Your task to perform on an android device: toggle priority inbox in the gmail app Image 0: 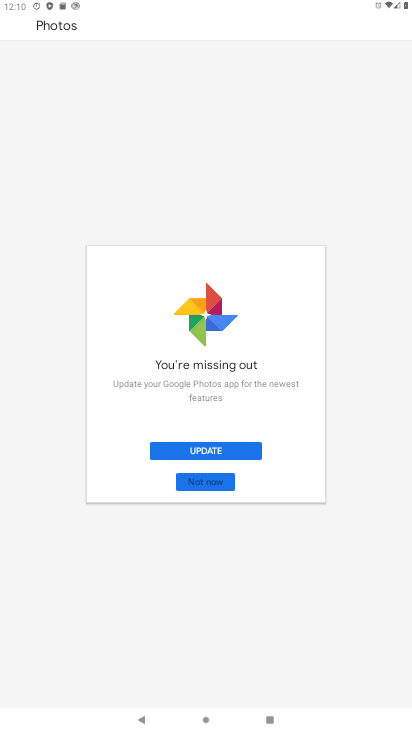
Step 0: press home button
Your task to perform on an android device: toggle priority inbox in the gmail app Image 1: 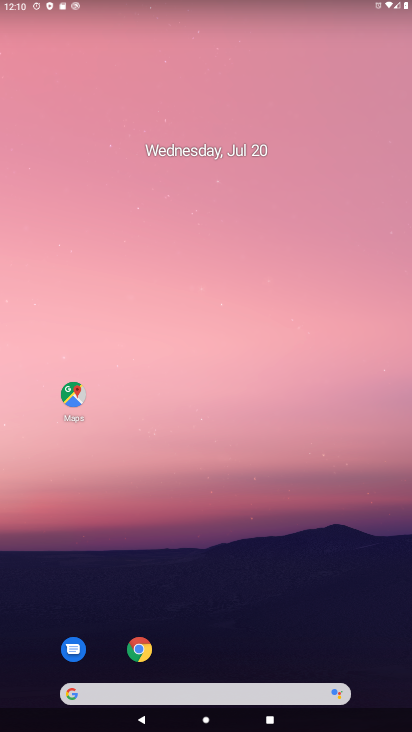
Step 1: drag from (237, 725) to (247, 249)
Your task to perform on an android device: toggle priority inbox in the gmail app Image 2: 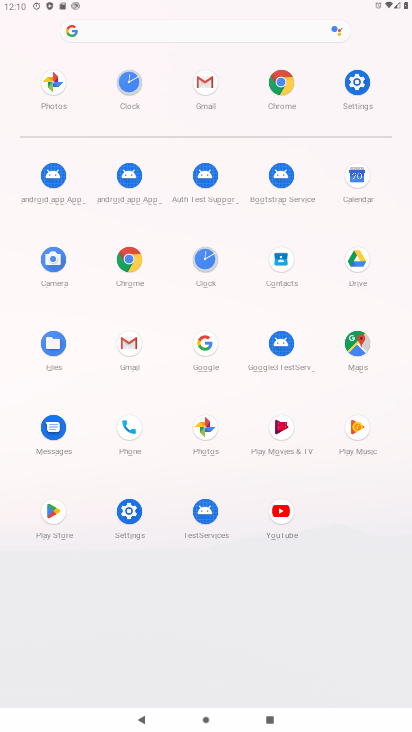
Step 2: click (133, 344)
Your task to perform on an android device: toggle priority inbox in the gmail app Image 3: 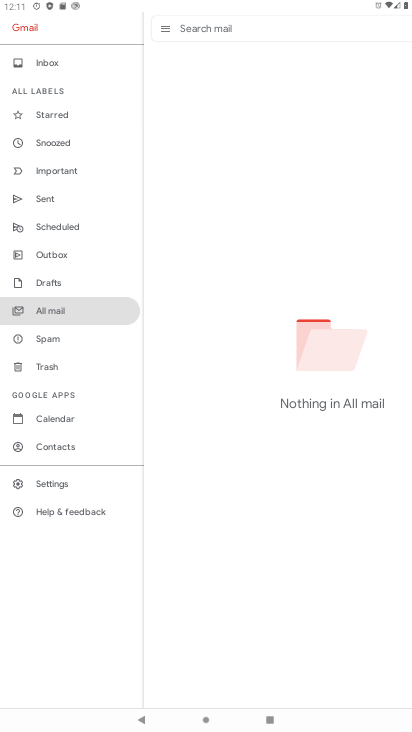
Step 3: click (52, 482)
Your task to perform on an android device: toggle priority inbox in the gmail app Image 4: 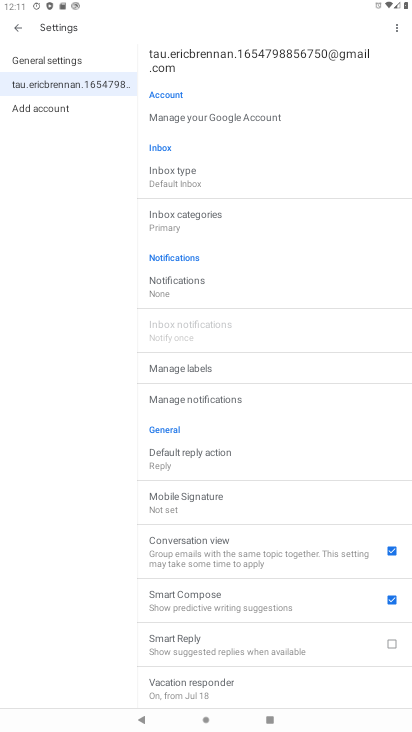
Step 4: click (175, 177)
Your task to perform on an android device: toggle priority inbox in the gmail app Image 5: 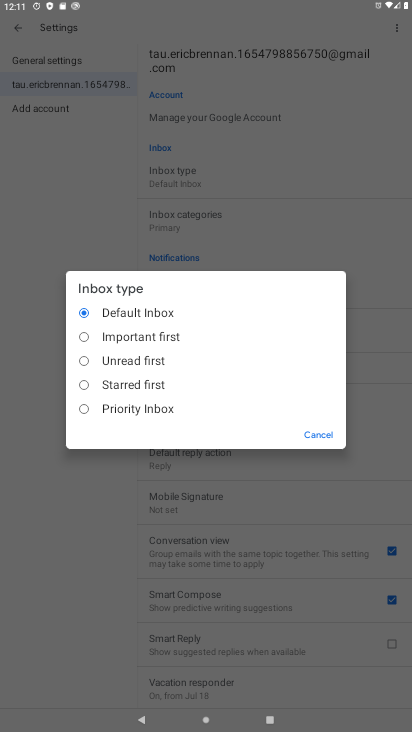
Step 5: click (83, 407)
Your task to perform on an android device: toggle priority inbox in the gmail app Image 6: 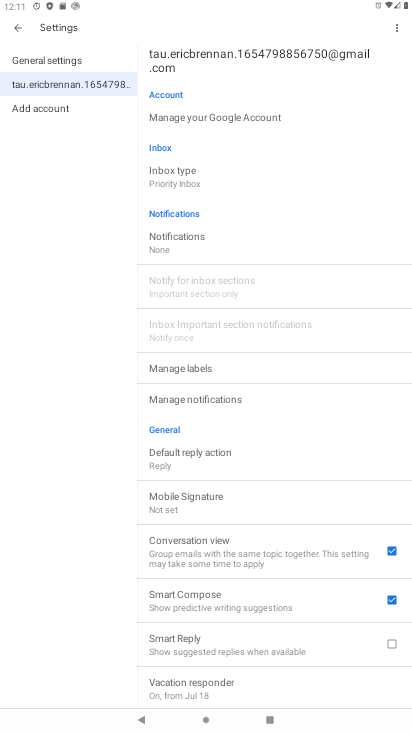
Step 6: task complete